Your task to perform on an android device: star an email in the gmail app Image 0: 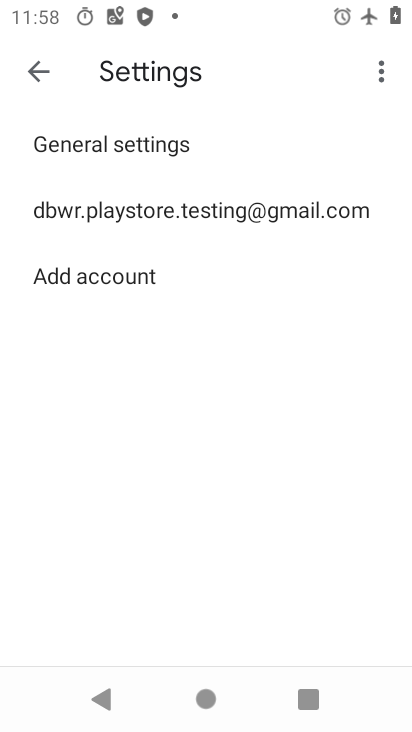
Step 0: press home button
Your task to perform on an android device: star an email in the gmail app Image 1: 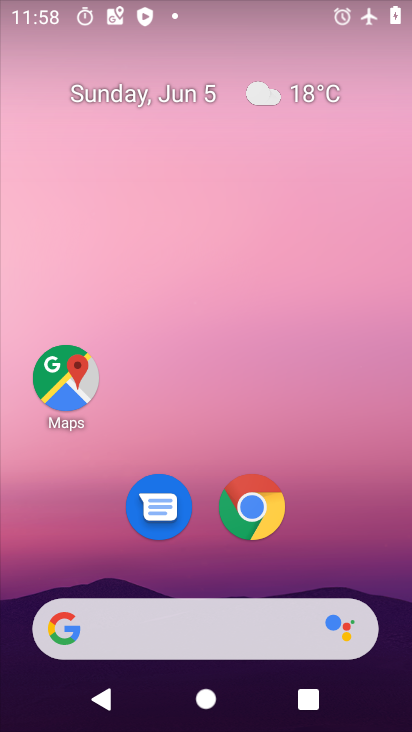
Step 1: drag from (234, 726) to (210, 132)
Your task to perform on an android device: star an email in the gmail app Image 2: 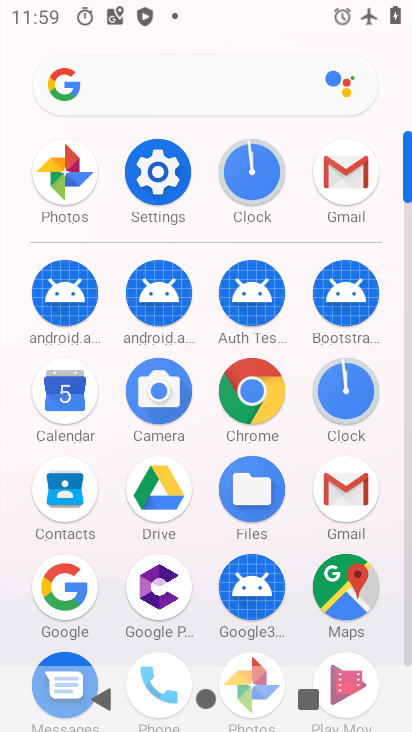
Step 2: click (342, 489)
Your task to perform on an android device: star an email in the gmail app Image 3: 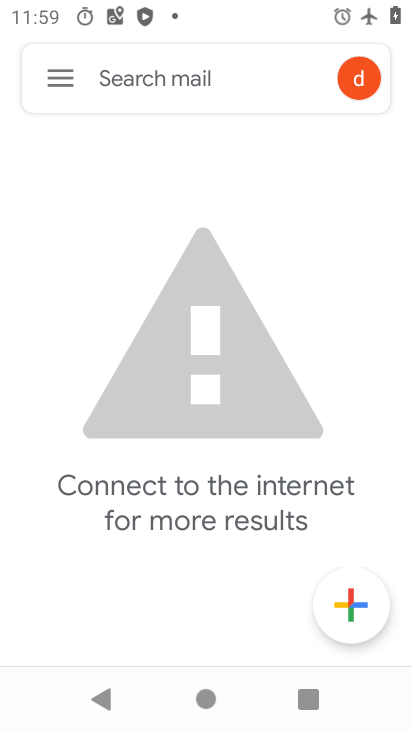
Step 3: click (58, 84)
Your task to perform on an android device: star an email in the gmail app Image 4: 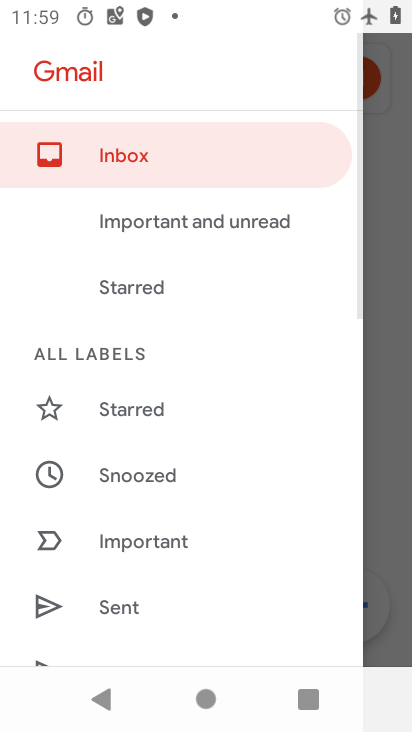
Step 4: click (147, 158)
Your task to perform on an android device: star an email in the gmail app Image 5: 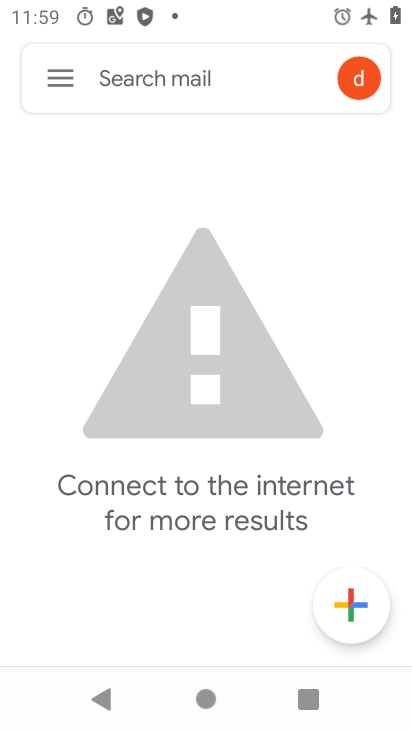
Step 5: task complete